Your task to perform on an android device: Go to location settings Image 0: 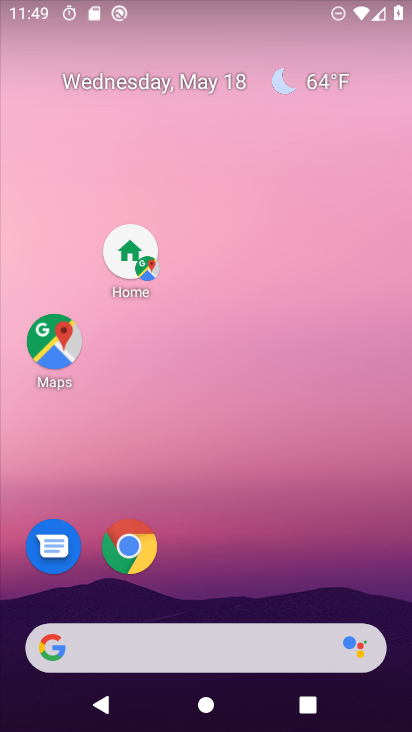
Step 0: drag from (165, 569) to (224, 108)
Your task to perform on an android device: Go to location settings Image 1: 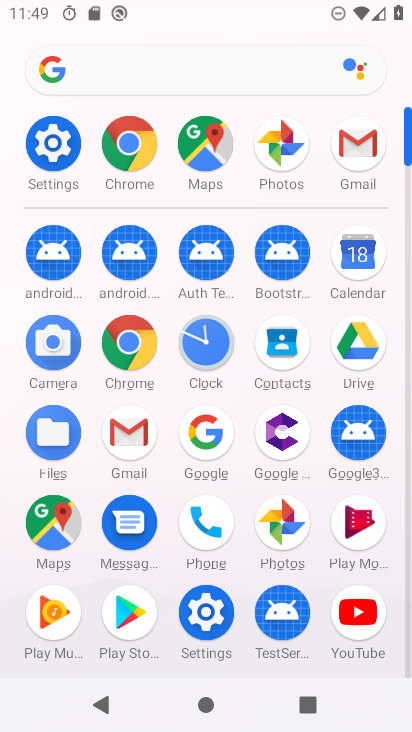
Step 1: click (39, 135)
Your task to perform on an android device: Go to location settings Image 2: 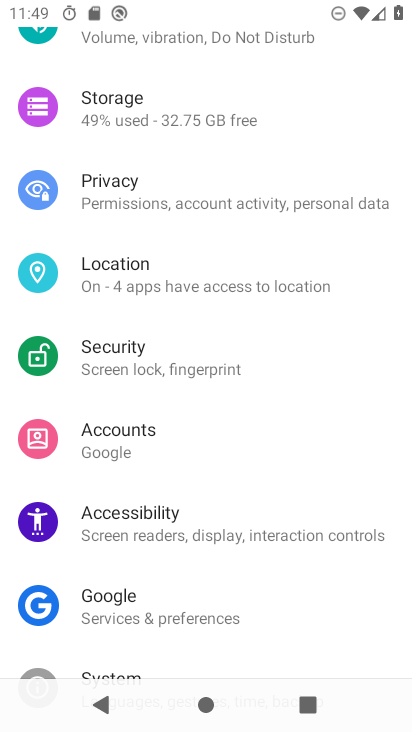
Step 2: click (215, 293)
Your task to perform on an android device: Go to location settings Image 3: 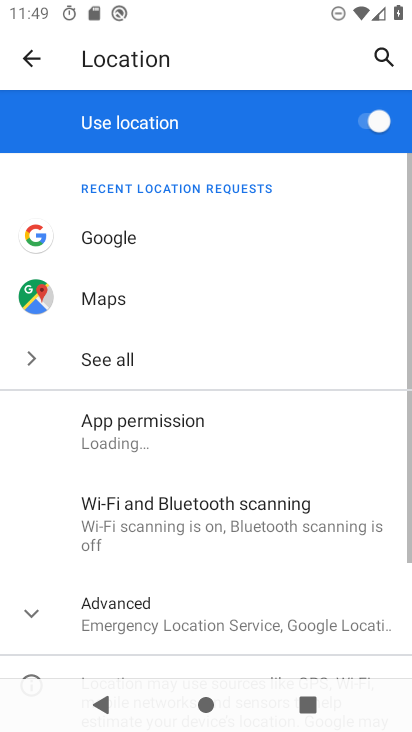
Step 3: task complete